Your task to perform on an android device: turn on airplane mode Image 0: 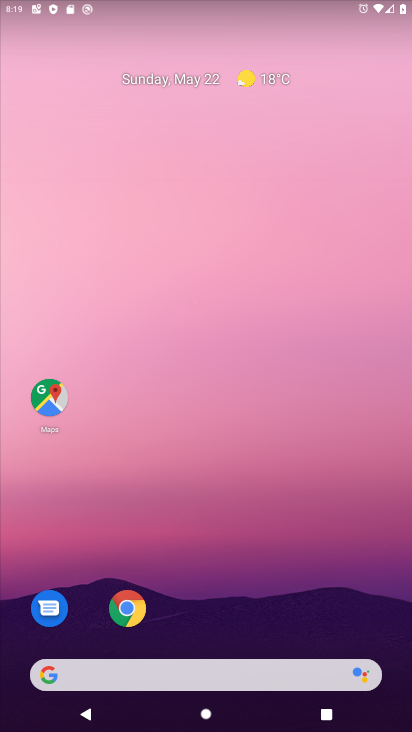
Step 0: drag from (238, 728) to (275, 277)
Your task to perform on an android device: turn on airplane mode Image 1: 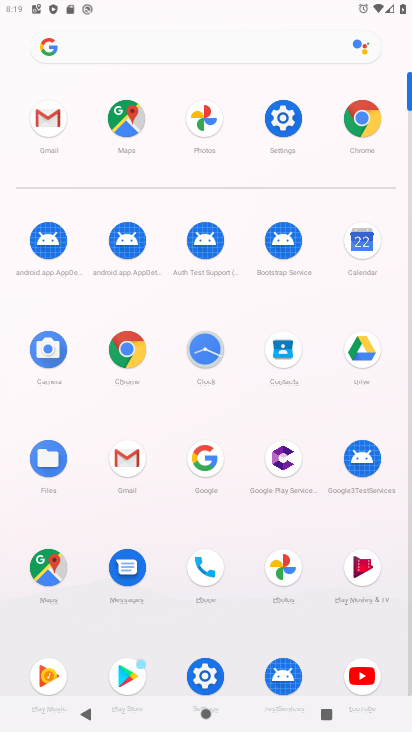
Step 1: click (281, 112)
Your task to perform on an android device: turn on airplane mode Image 2: 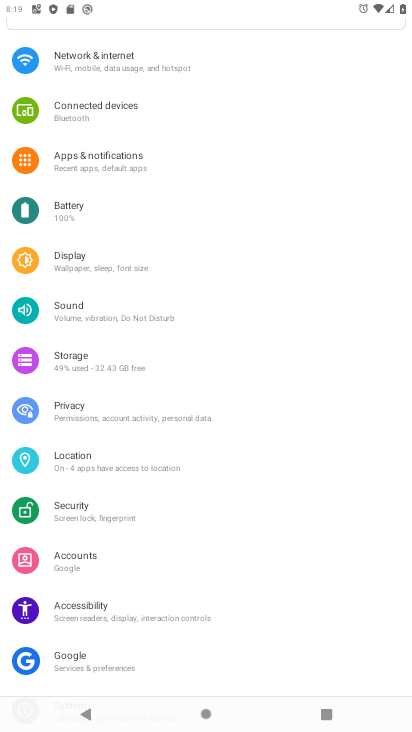
Step 2: drag from (175, 131) to (203, 512)
Your task to perform on an android device: turn on airplane mode Image 3: 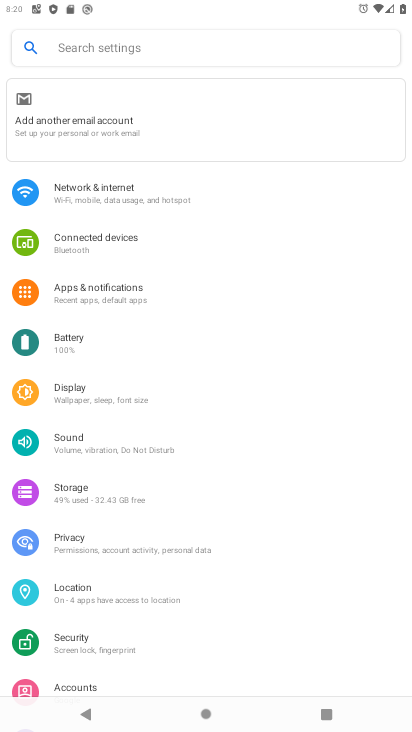
Step 3: click (82, 191)
Your task to perform on an android device: turn on airplane mode Image 4: 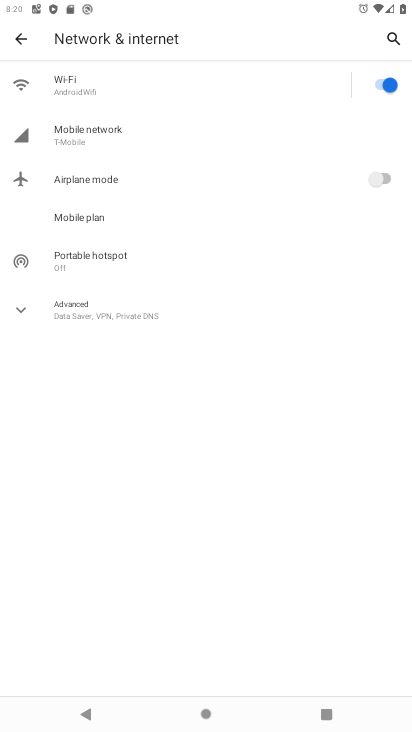
Step 4: click (383, 180)
Your task to perform on an android device: turn on airplane mode Image 5: 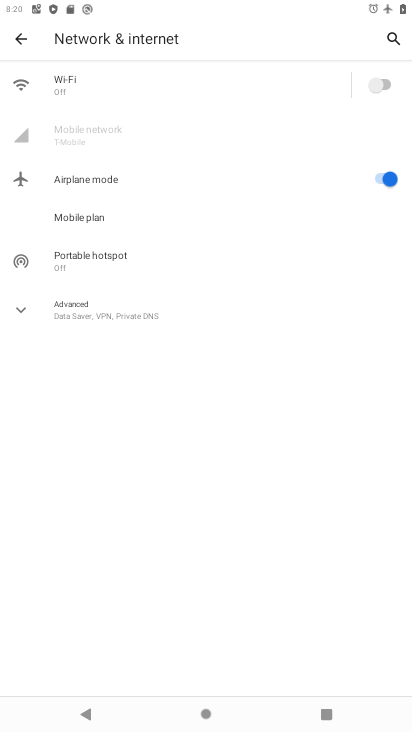
Step 5: task complete